Your task to perform on an android device: see creations saved in the google photos Image 0: 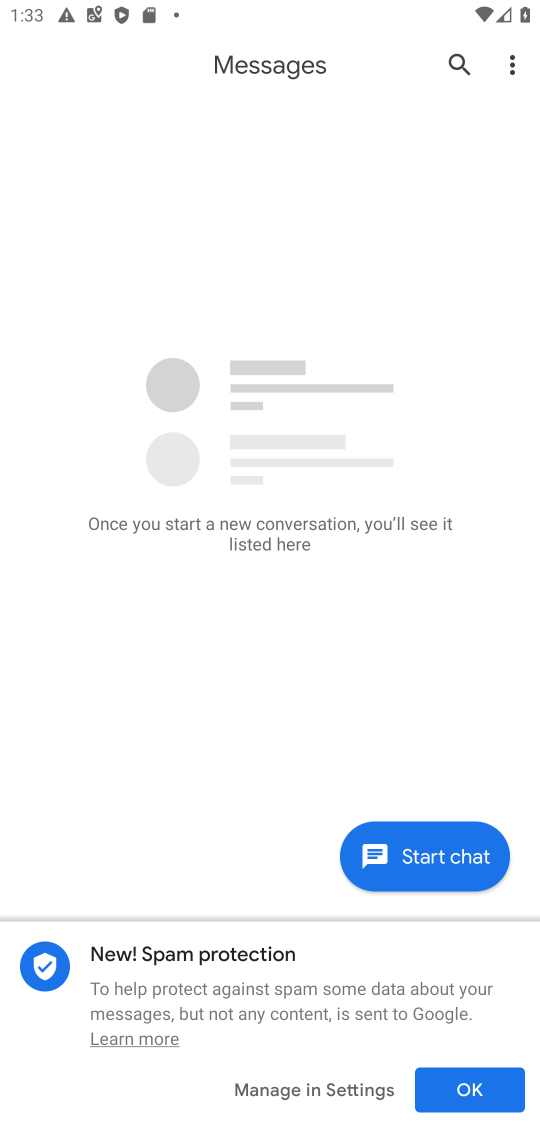
Step 0: press home button
Your task to perform on an android device: see creations saved in the google photos Image 1: 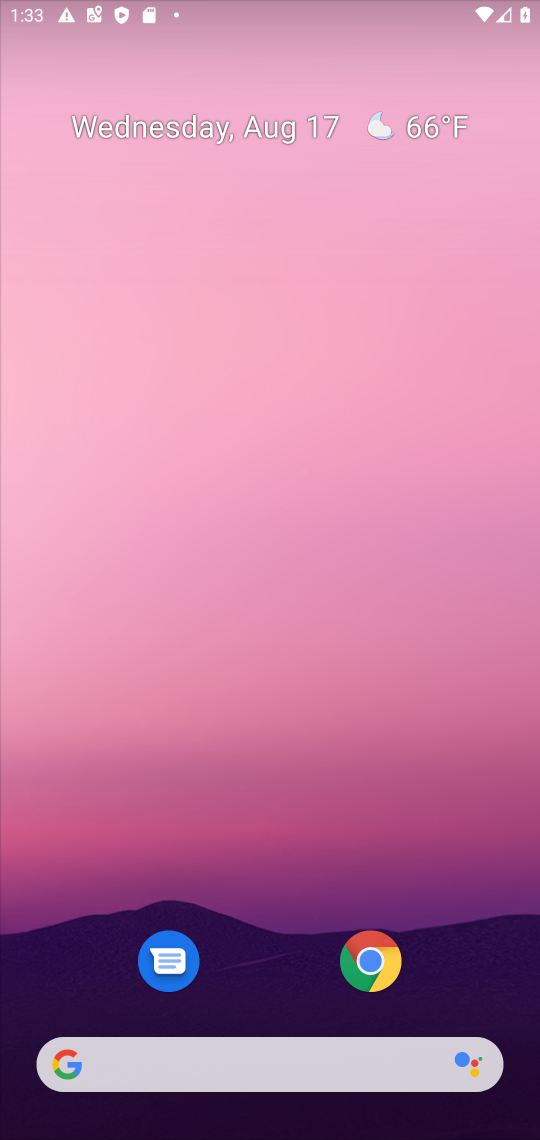
Step 1: drag from (274, 1054) to (284, 310)
Your task to perform on an android device: see creations saved in the google photos Image 2: 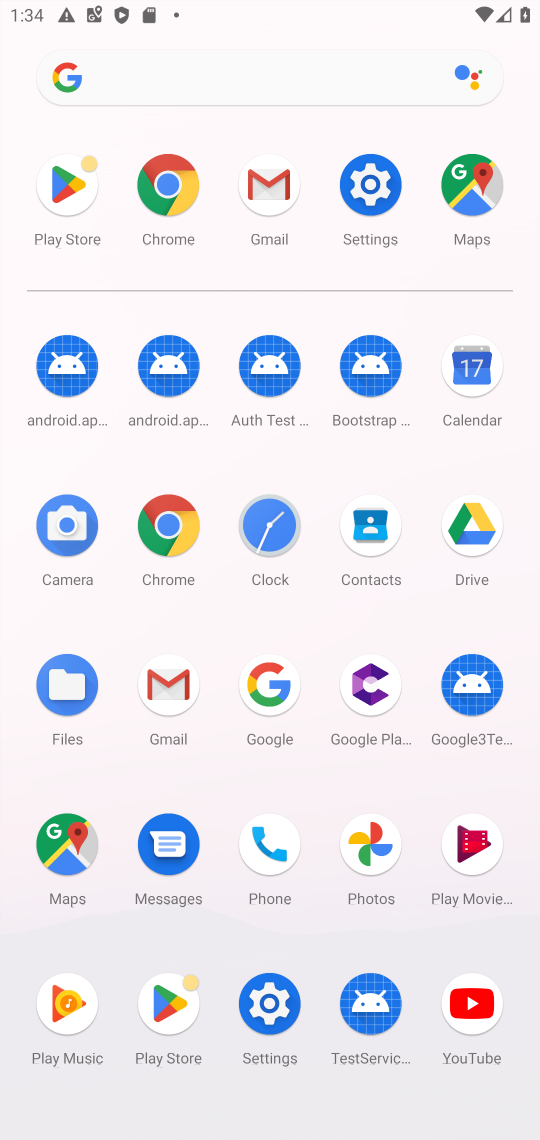
Step 2: click (370, 880)
Your task to perform on an android device: see creations saved in the google photos Image 3: 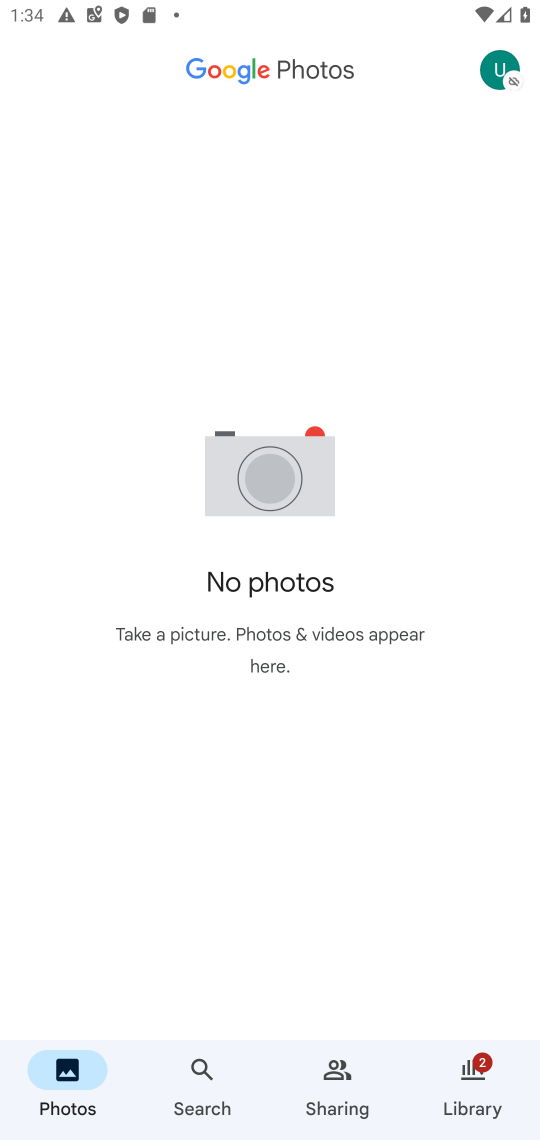
Step 3: task complete